Your task to perform on an android device: install app "Google Duo" Image 0: 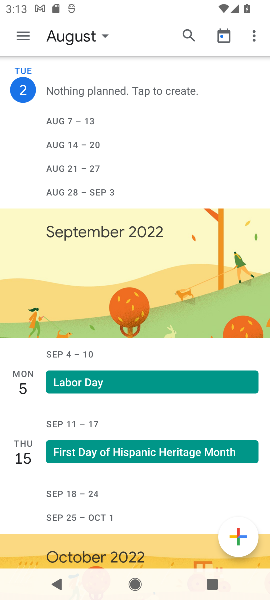
Step 0: press home button
Your task to perform on an android device: install app "Google Duo" Image 1: 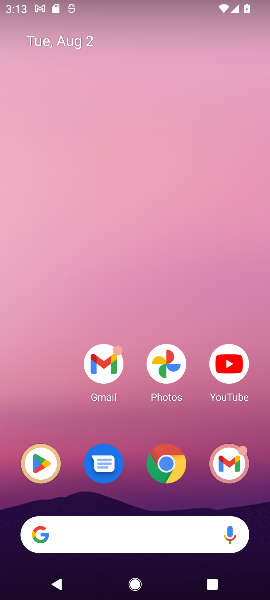
Step 1: click (39, 462)
Your task to perform on an android device: install app "Google Duo" Image 2: 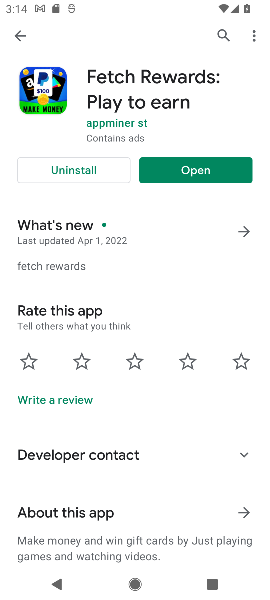
Step 2: click (219, 28)
Your task to perform on an android device: install app "Google Duo" Image 3: 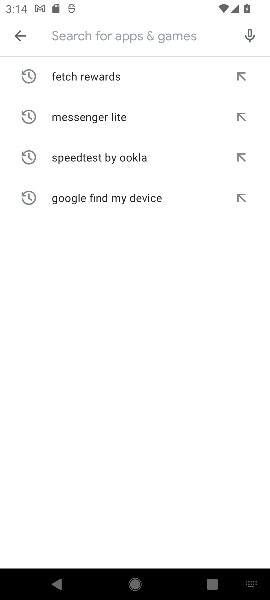
Step 3: type "Google Duo"
Your task to perform on an android device: install app "Google Duo" Image 4: 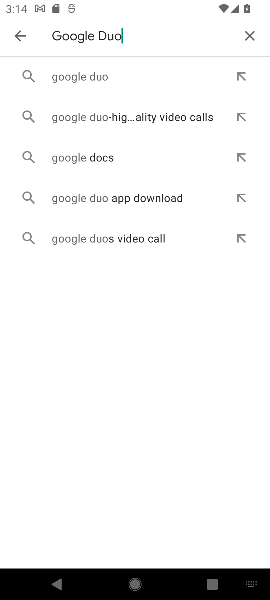
Step 4: click (79, 76)
Your task to perform on an android device: install app "Google Duo" Image 5: 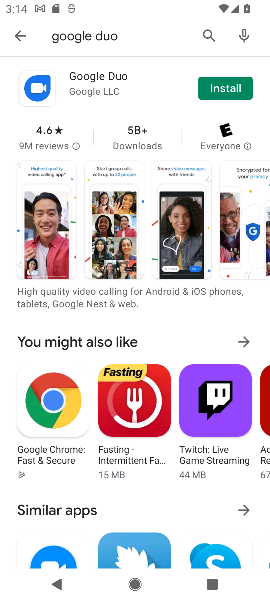
Step 5: click (226, 81)
Your task to perform on an android device: install app "Google Duo" Image 6: 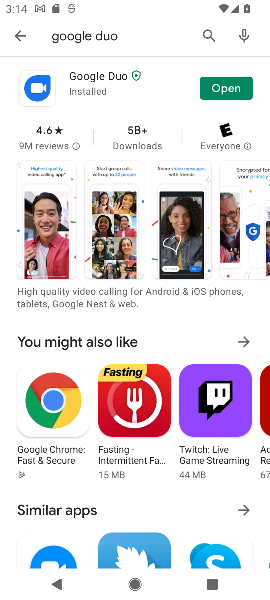
Step 6: task complete